Your task to perform on an android device: Open Amazon Image 0: 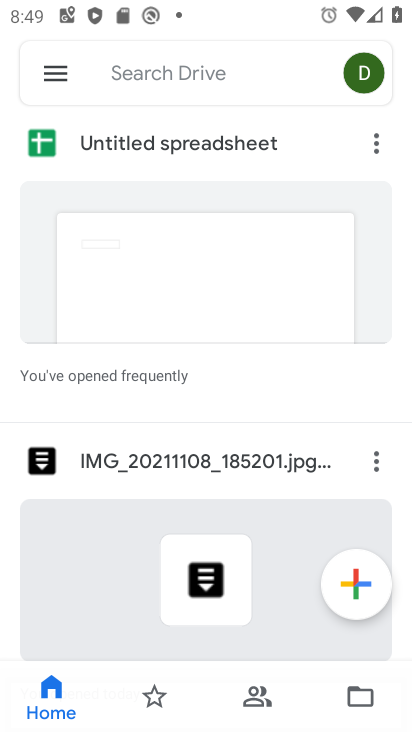
Step 0: press home button
Your task to perform on an android device: Open Amazon Image 1: 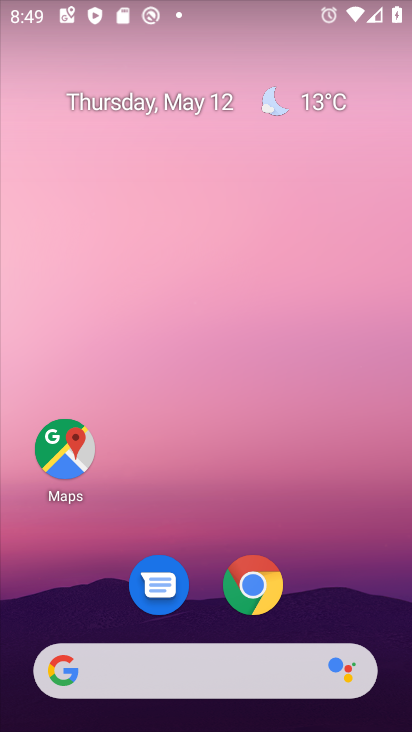
Step 1: click (272, 572)
Your task to perform on an android device: Open Amazon Image 2: 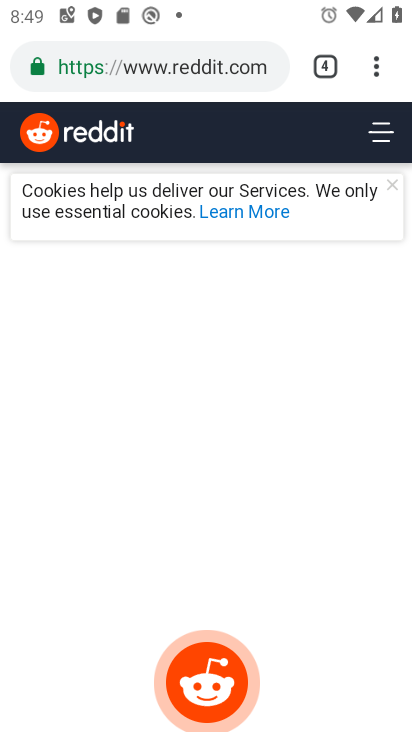
Step 2: click (377, 66)
Your task to perform on an android device: Open Amazon Image 3: 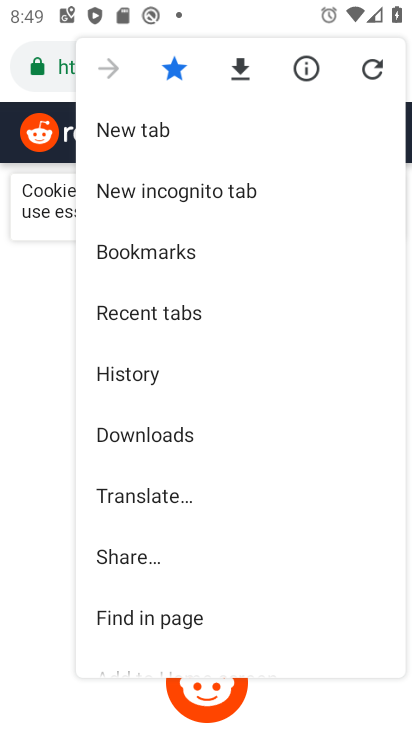
Step 3: click (276, 125)
Your task to perform on an android device: Open Amazon Image 4: 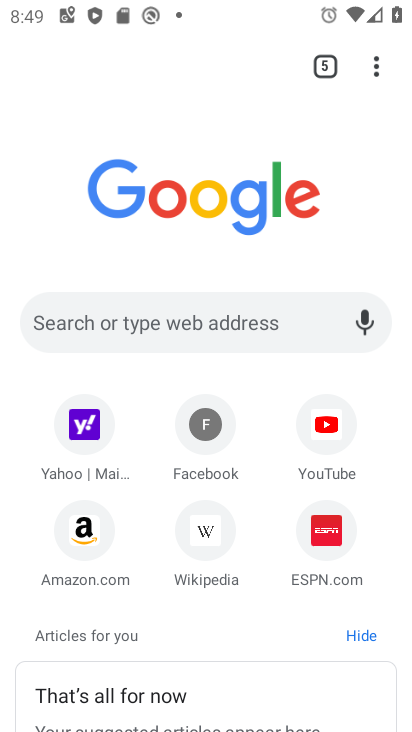
Step 4: click (91, 532)
Your task to perform on an android device: Open Amazon Image 5: 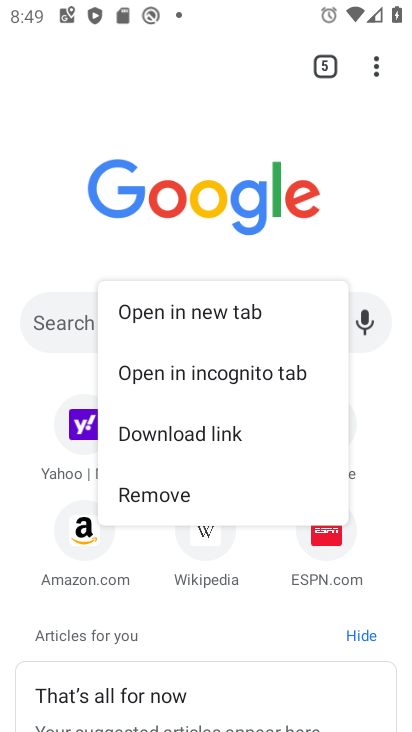
Step 5: click (75, 528)
Your task to perform on an android device: Open Amazon Image 6: 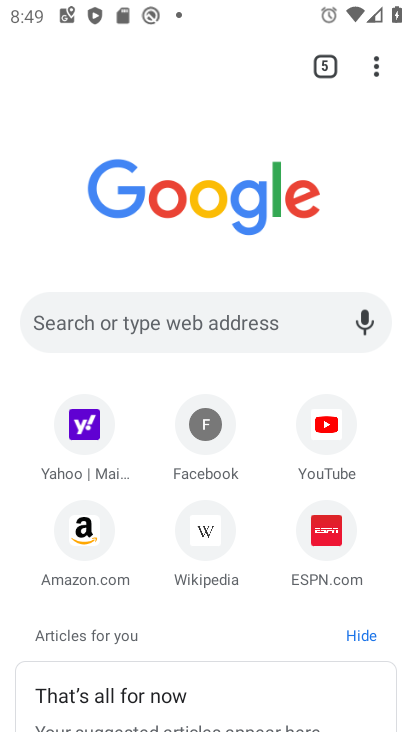
Step 6: click (75, 513)
Your task to perform on an android device: Open Amazon Image 7: 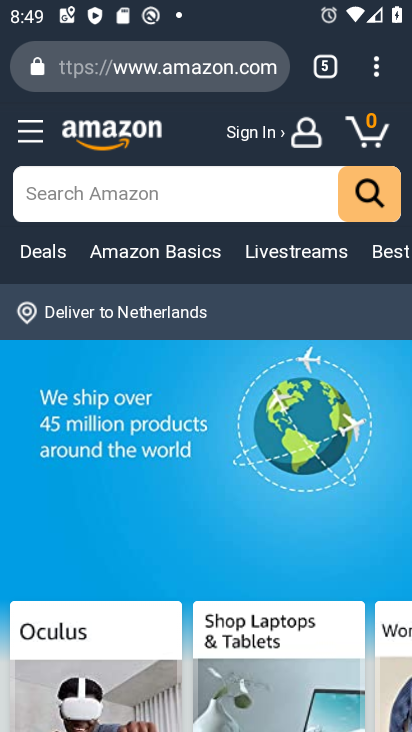
Step 7: task complete